Your task to perform on an android device: What's on my calendar today? Image 0: 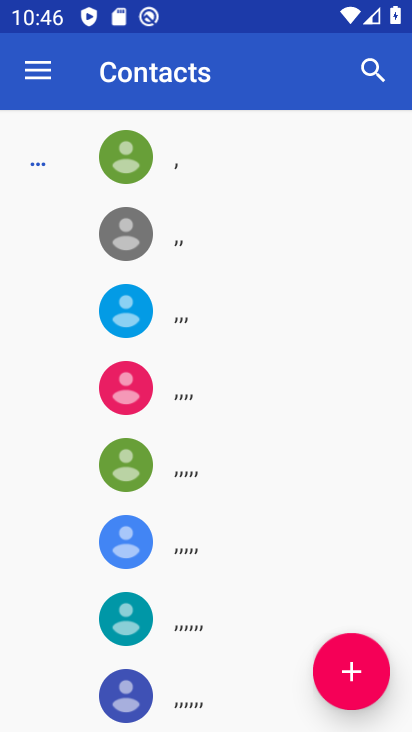
Step 0: task complete